Your task to perform on an android device: clear all cookies in the chrome app Image 0: 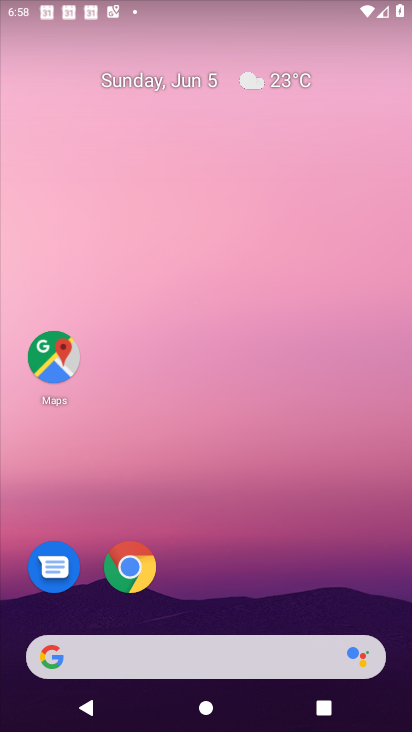
Step 0: drag from (401, 638) to (282, 3)
Your task to perform on an android device: clear all cookies in the chrome app Image 1: 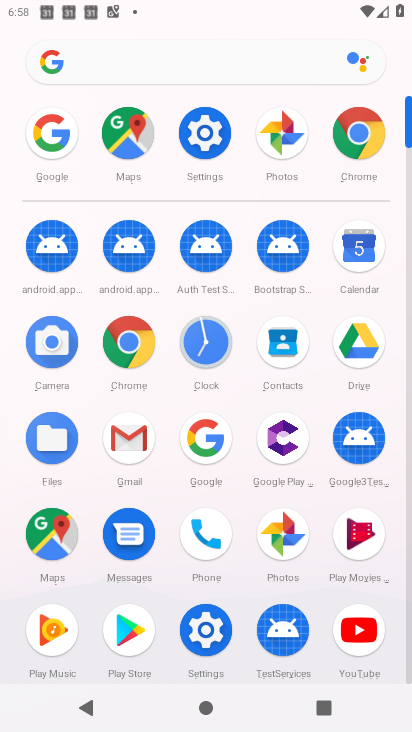
Step 1: click (356, 137)
Your task to perform on an android device: clear all cookies in the chrome app Image 2: 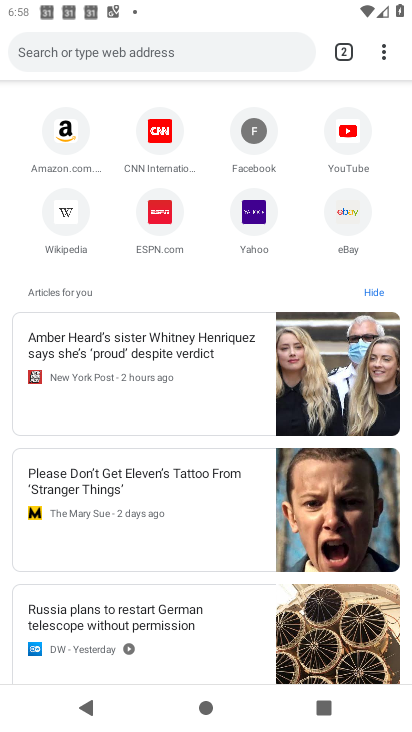
Step 2: click (383, 48)
Your task to perform on an android device: clear all cookies in the chrome app Image 3: 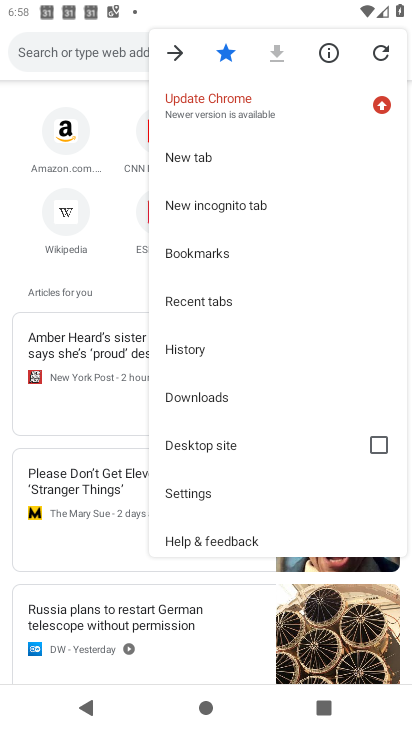
Step 3: click (198, 359)
Your task to perform on an android device: clear all cookies in the chrome app Image 4: 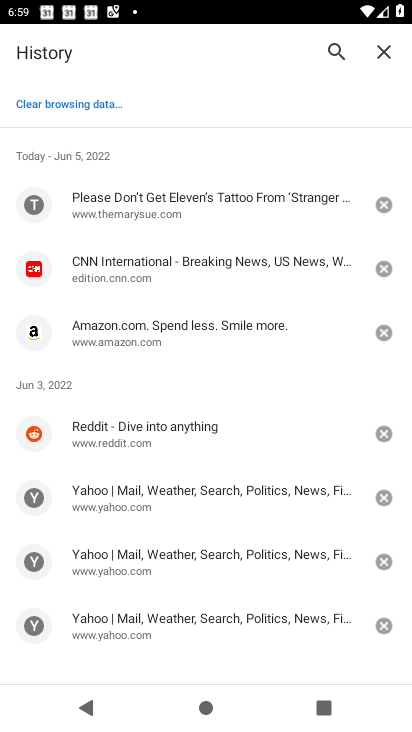
Step 4: click (64, 106)
Your task to perform on an android device: clear all cookies in the chrome app Image 5: 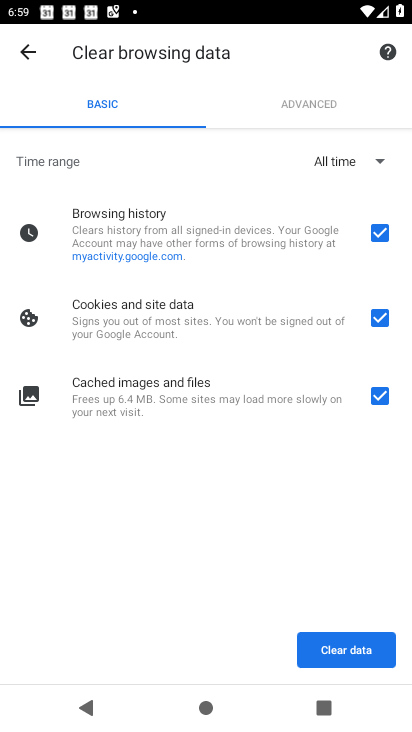
Step 5: click (356, 654)
Your task to perform on an android device: clear all cookies in the chrome app Image 6: 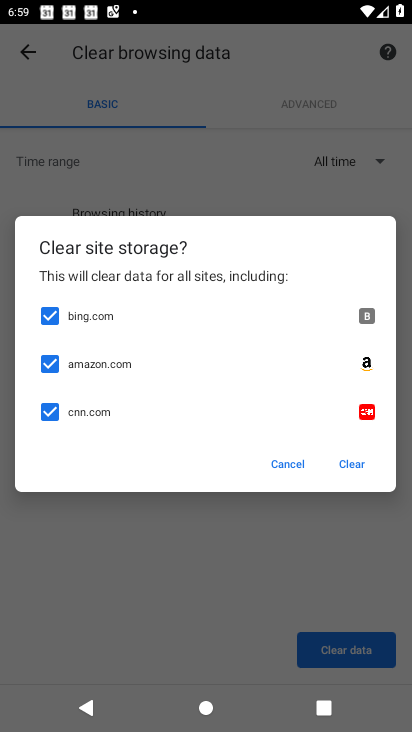
Step 6: click (360, 469)
Your task to perform on an android device: clear all cookies in the chrome app Image 7: 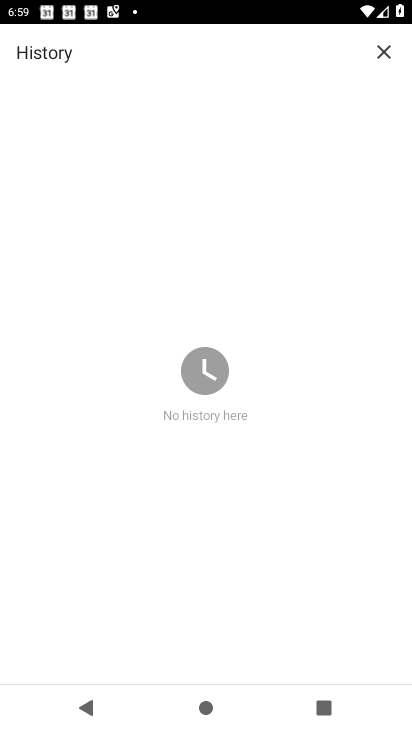
Step 7: task complete